Your task to perform on an android device: turn on improve location accuracy Image 0: 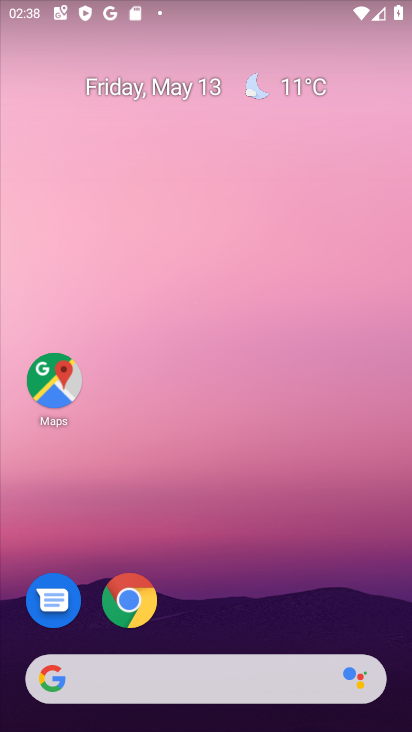
Step 0: drag from (221, 648) to (207, 260)
Your task to perform on an android device: turn on improve location accuracy Image 1: 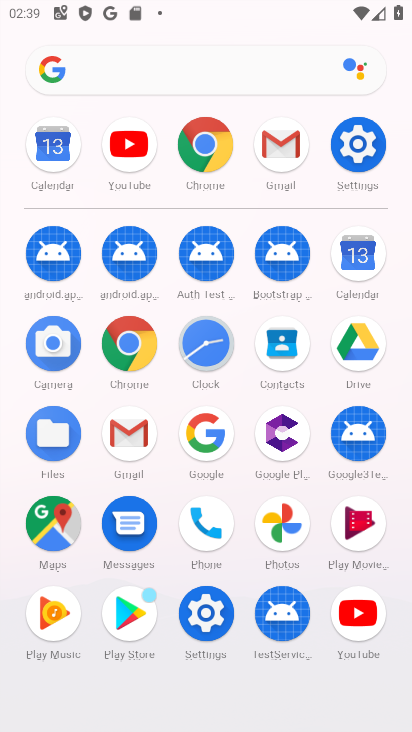
Step 1: click (353, 142)
Your task to perform on an android device: turn on improve location accuracy Image 2: 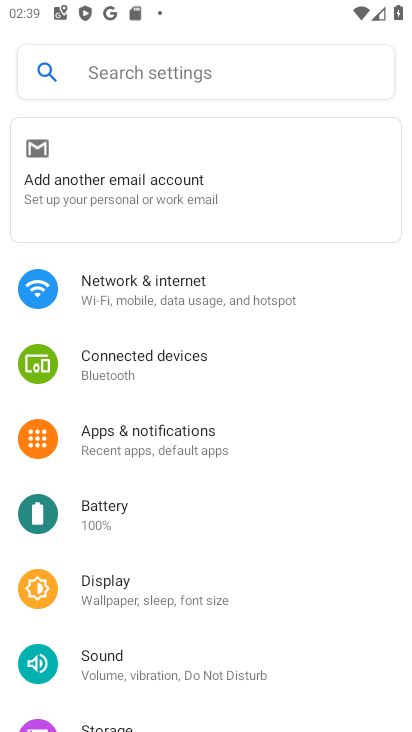
Step 2: drag from (214, 686) to (198, 101)
Your task to perform on an android device: turn on improve location accuracy Image 3: 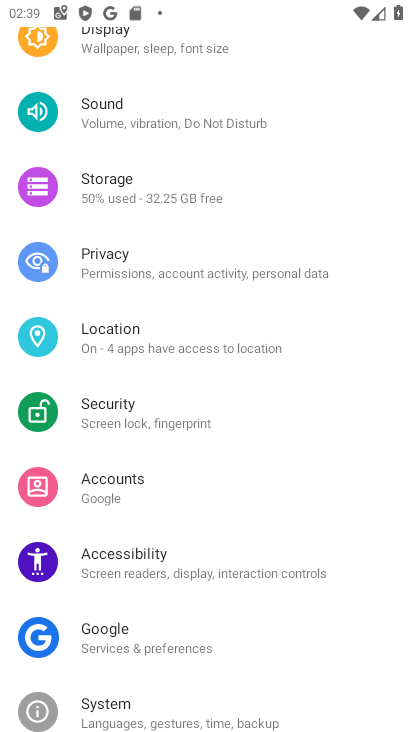
Step 3: click (147, 345)
Your task to perform on an android device: turn on improve location accuracy Image 4: 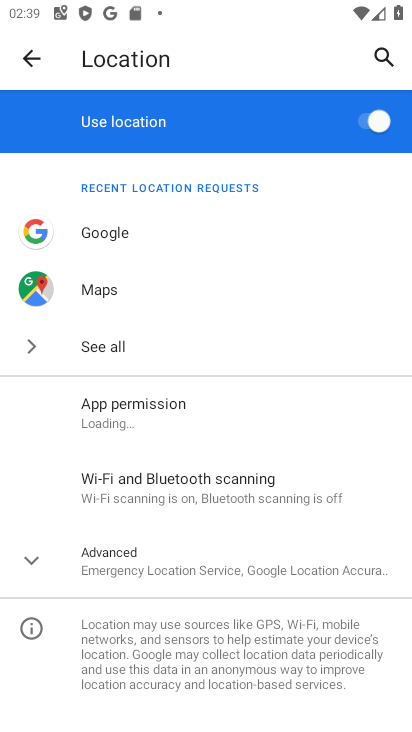
Step 4: click (114, 523)
Your task to perform on an android device: turn on improve location accuracy Image 5: 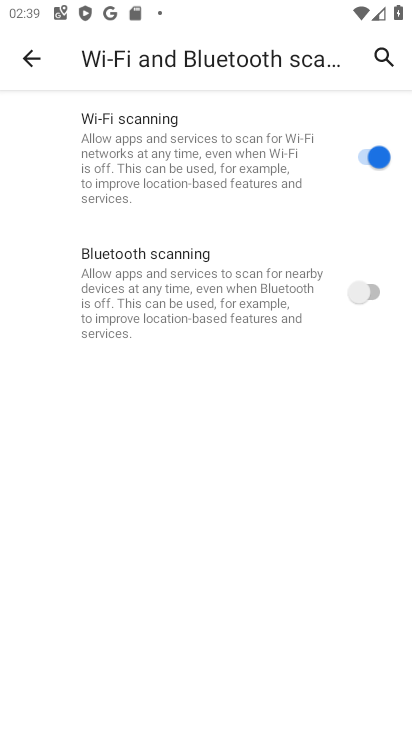
Step 5: click (36, 63)
Your task to perform on an android device: turn on improve location accuracy Image 6: 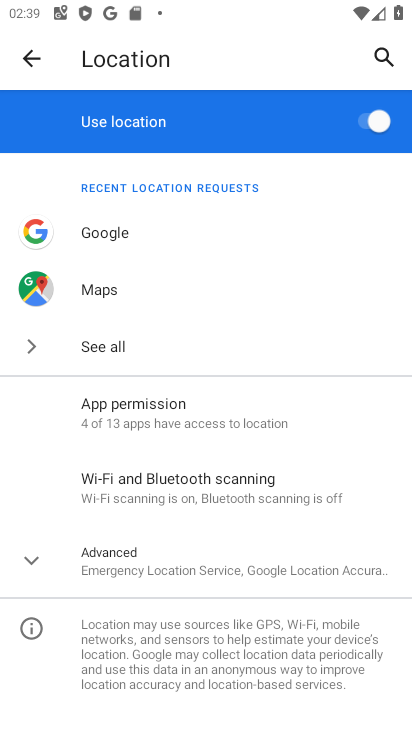
Step 6: click (189, 564)
Your task to perform on an android device: turn on improve location accuracy Image 7: 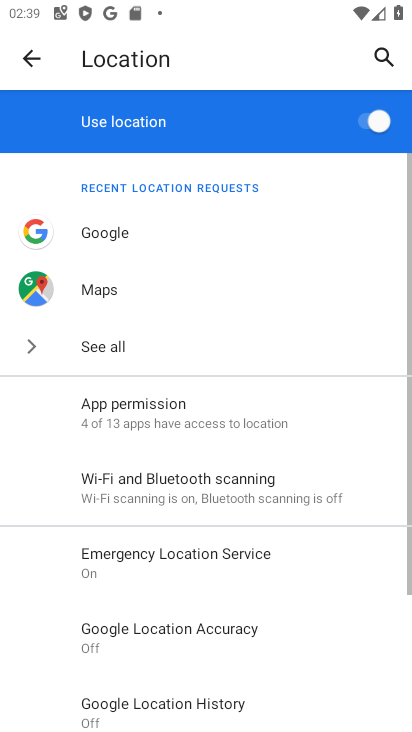
Step 7: drag from (214, 610) to (266, 285)
Your task to perform on an android device: turn on improve location accuracy Image 8: 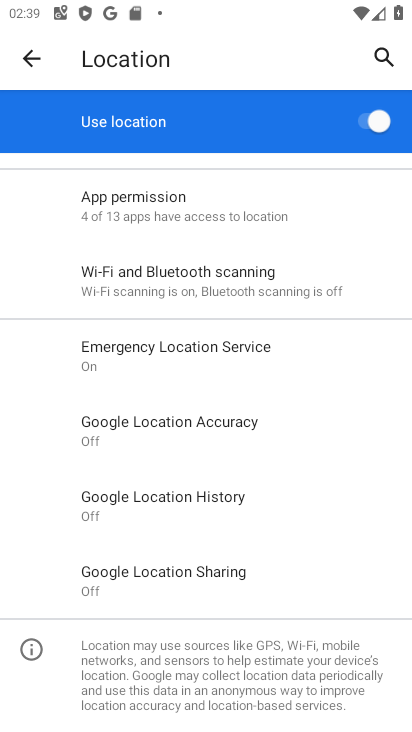
Step 8: click (136, 425)
Your task to perform on an android device: turn on improve location accuracy Image 9: 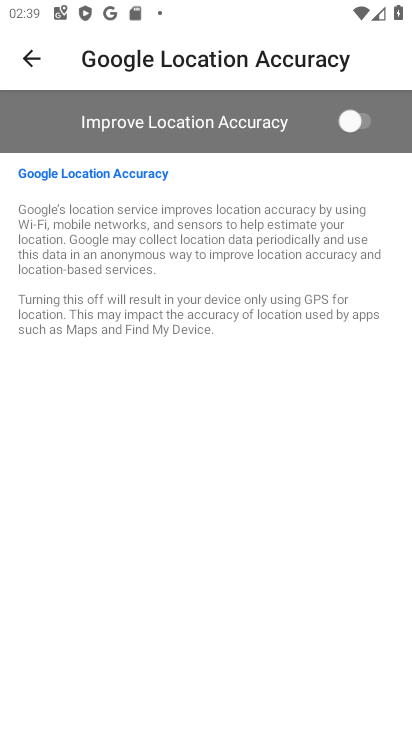
Step 9: click (346, 115)
Your task to perform on an android device: turn on improve location accuracy Image 10: 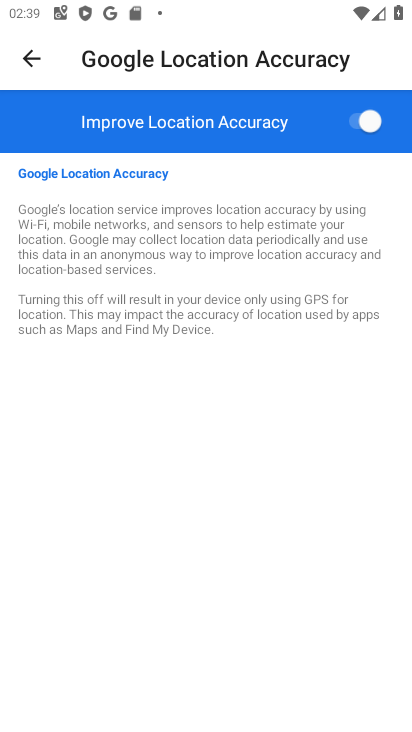
Step 10: task complete